Your task to perform on an android device: Open calendar and show me the third week of next month Image 0: 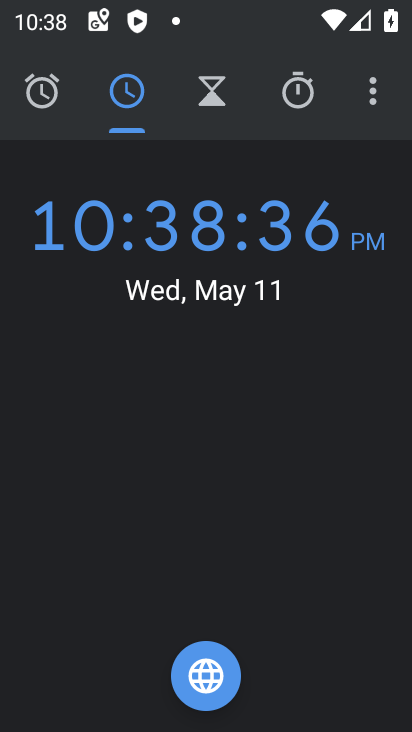
Step 0: press home button
Your task to perform on an android device: Open calendar and show me the third week of next month Image 1: 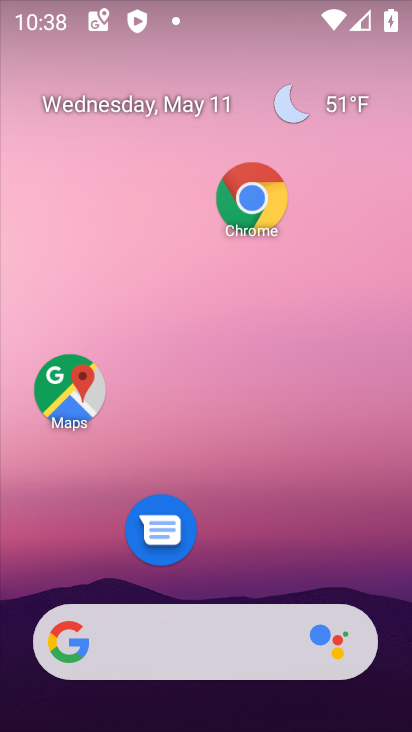
Step 1: drag from (275, 576) to (267, 130)
Your task to perform on an android device: Open calendar and show me the third week of next month Image 2: 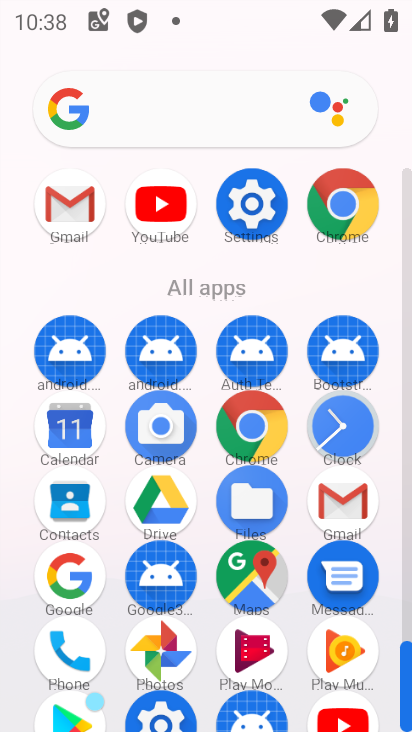
Step 2: click (57, 416)
Your task to perform on an android device: Open calendar and show me the third week of next month Image 3: 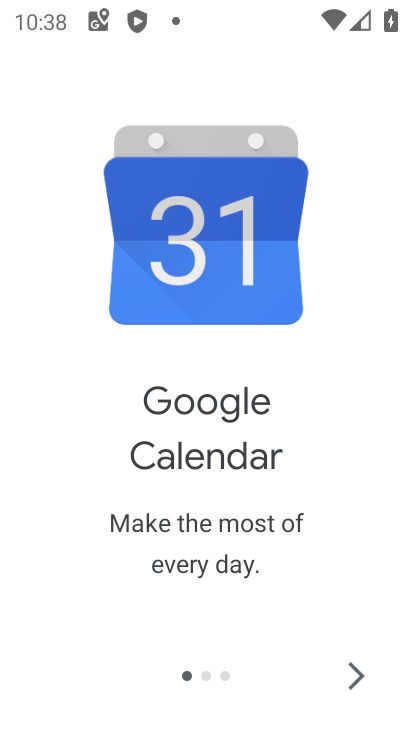
Step 3: click (364, 685)
Your task to perform on an android device: Open calendar and show me the third week of next month Image 4: 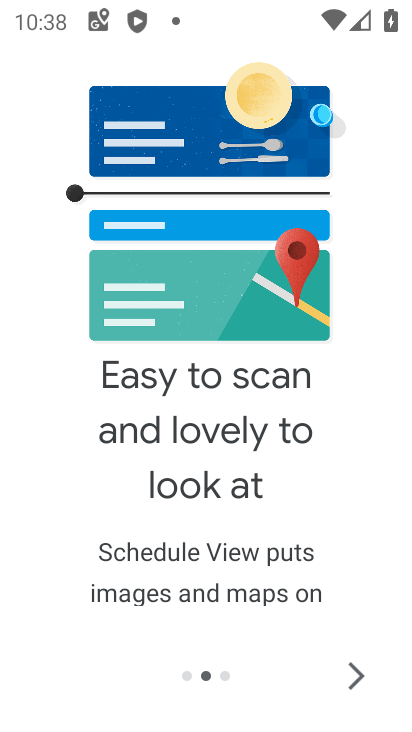
Step 4: click (364, 685)
Your task to perform on an android device: Open calendar and show me the third week of next month Image 5: 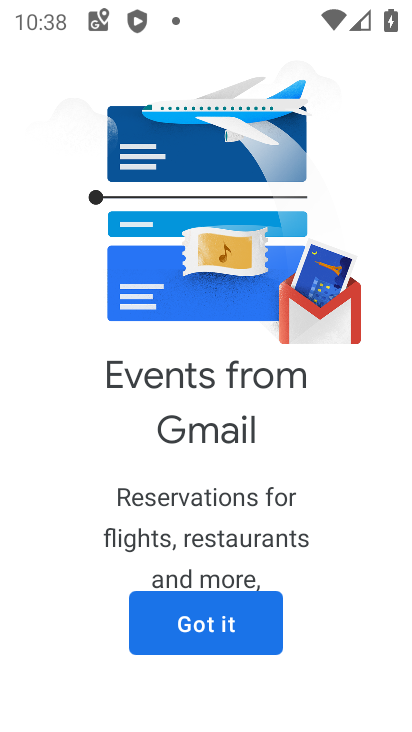
Step 5: click (364, 685)
Your task to perform on an android device: Open calendar and show me the third week of next month Image 6: 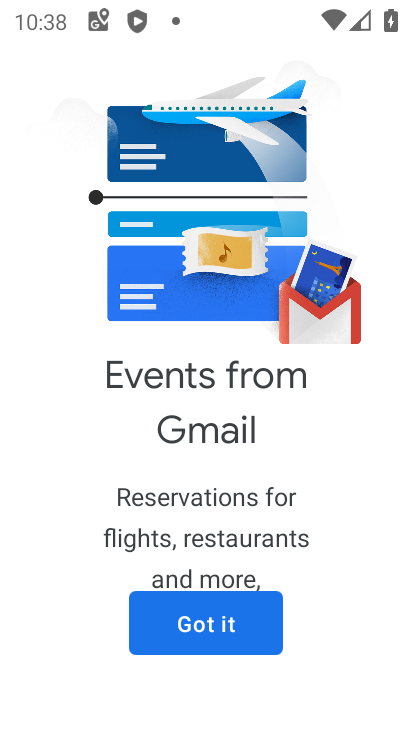
Step 6: click (235, 628)
Your task to perform on an android device: Open calendar and show me the third week of next month Image 7: 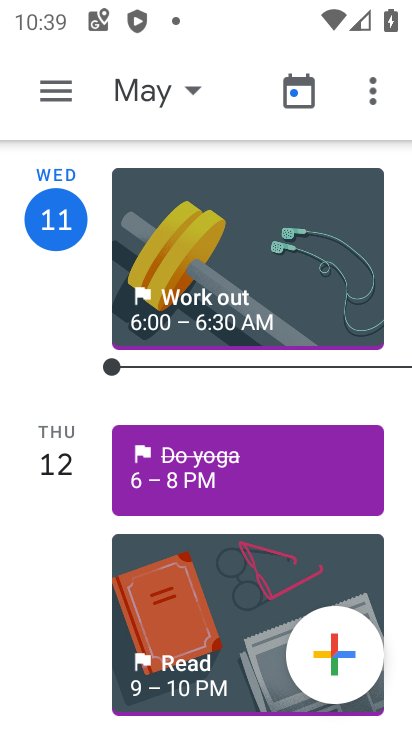
Step 7: click (65, 92)
Your task to perform on an android device: Open calendar and show me the third week of next month Image 8: 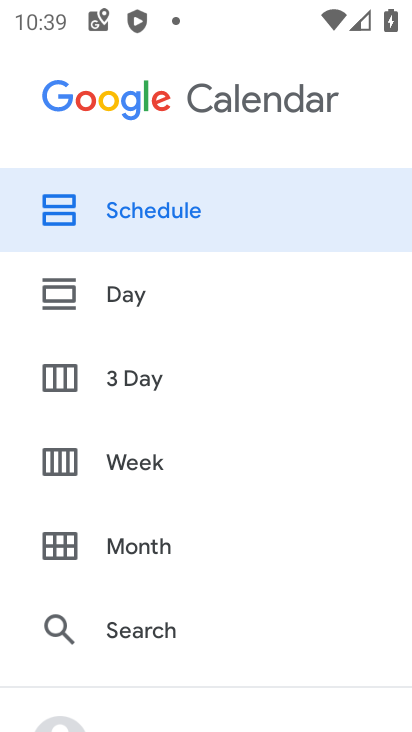
Step 8: click (126, 472)
Your task to perform on an android device: Open calendar and show me the third week of next month Image 9: 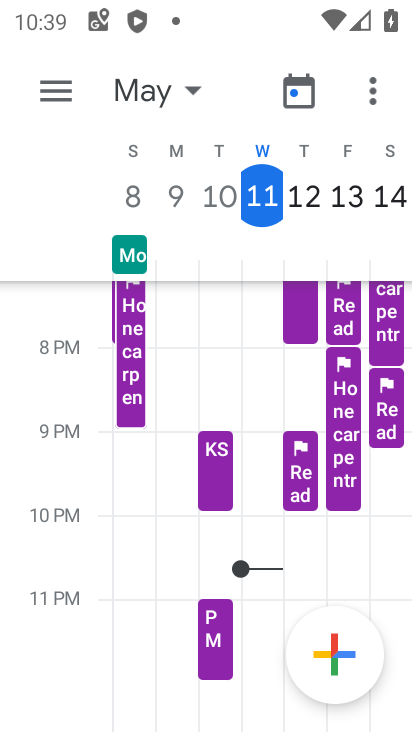
Step 9: click (135, 92)
Your task to perform on an android device: Open calendar and show me the third week of next month Image 10: 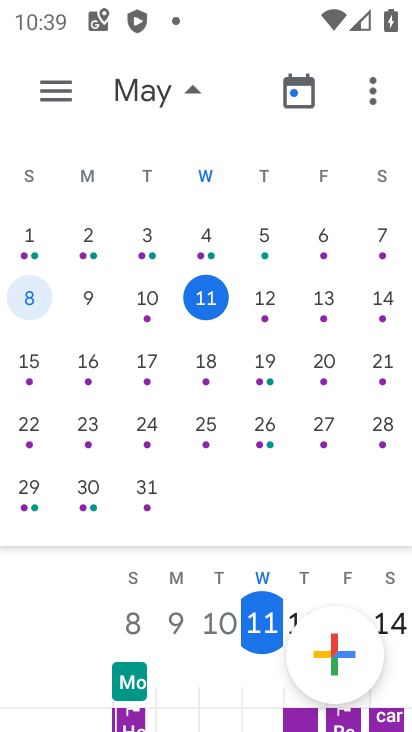
Step 10: drag from (377, 372) to (7, 396)
Your task to perform on an android device: Open calendar and show me the third week of next month Image 11: 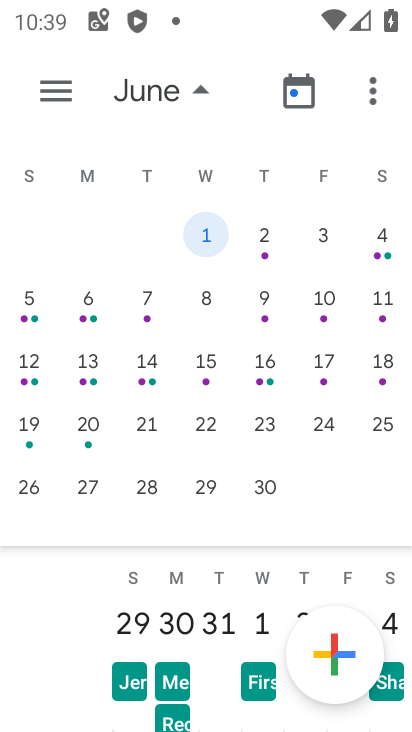
Step 11: click (27, 425)
Your task to perform on an android device: Open calendar and show me the third week of next month Image 12: 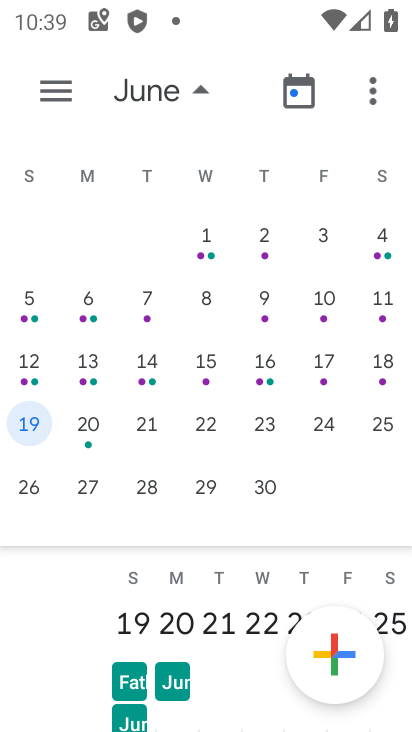
Step 12: click (27, 425)
Your task to perform on an android device: Open calendar and show me the third week of next month Image 13: 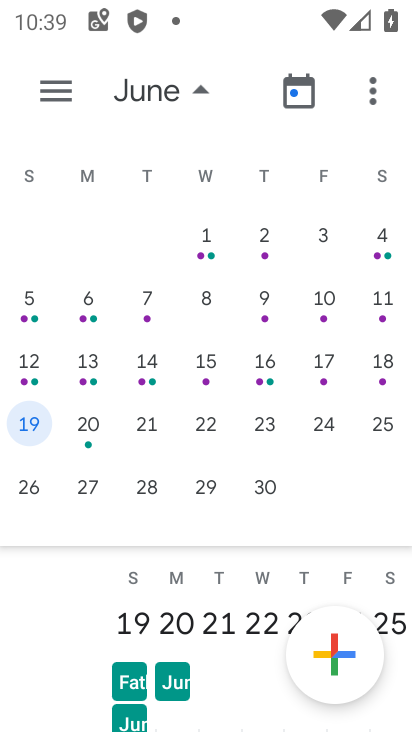
Step 13: task complete